Your task to perform on an android device: Do I have any events this weekend? Image 0: 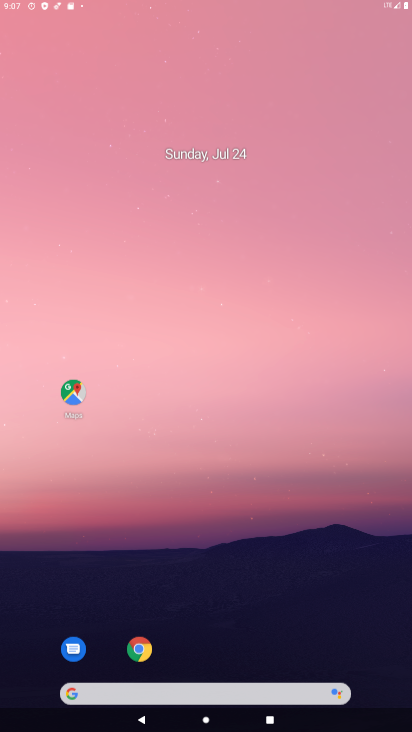
Step 0: drag from (232, 227) to (243, 171)
Your task to perform on an android device: Do I have any events this weekend? Image 1: 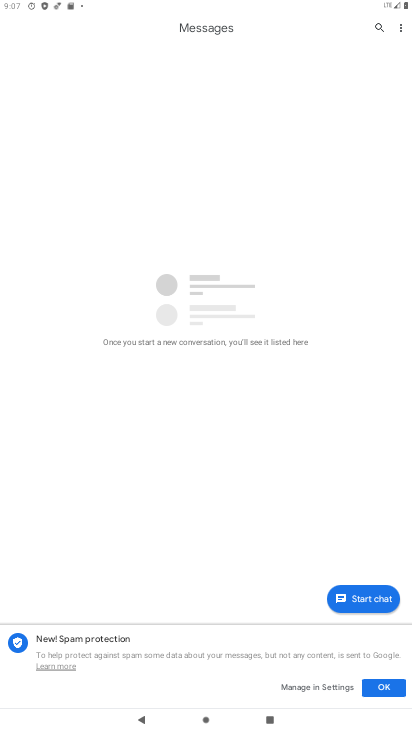
Step 1: press home button
Your task to perform on an android device: Do I have any events this weekend? Image 2: 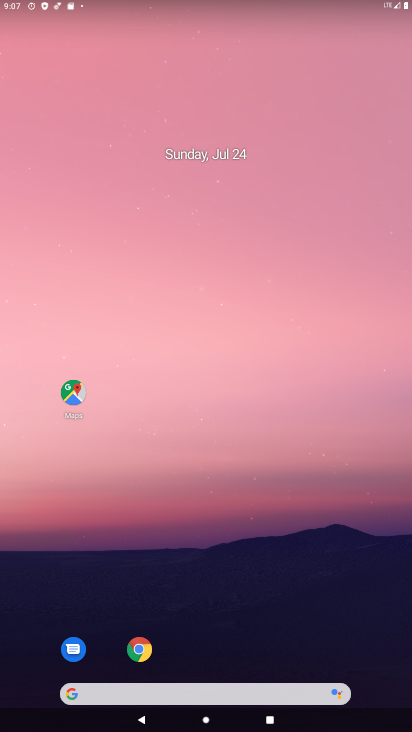
Step 2: drag from (22, 701) to (296, 200)
Your task to perform on an android device: Do I have any events this weekend? Image 3: 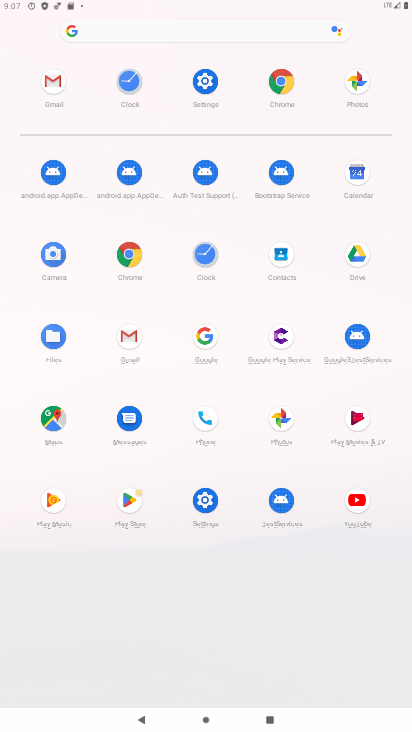
Step 3: click (349, 168)
Your task to perform on an android device: Do I have any events this weekend? Image 4: 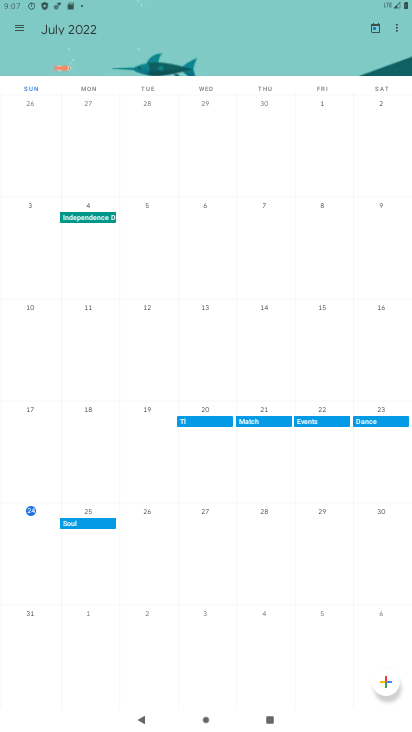
Step 4: task complete